Your task to perform on an android device: toggle javascript in the chrome app Image 0: 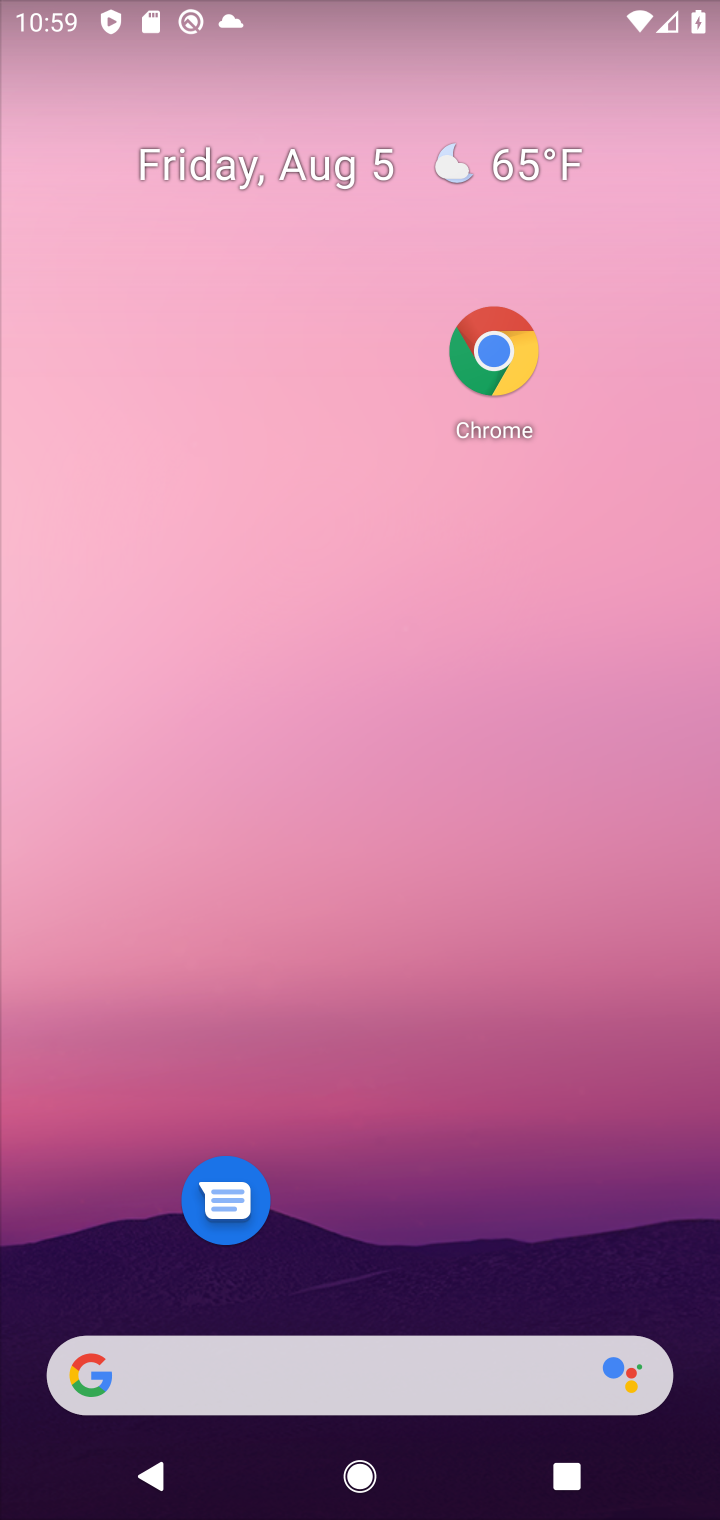
Step 0: drag from (383, 1307) to (628, 128)
Your task to perform on an android device: toggle javascript in the chrome app Image 1: 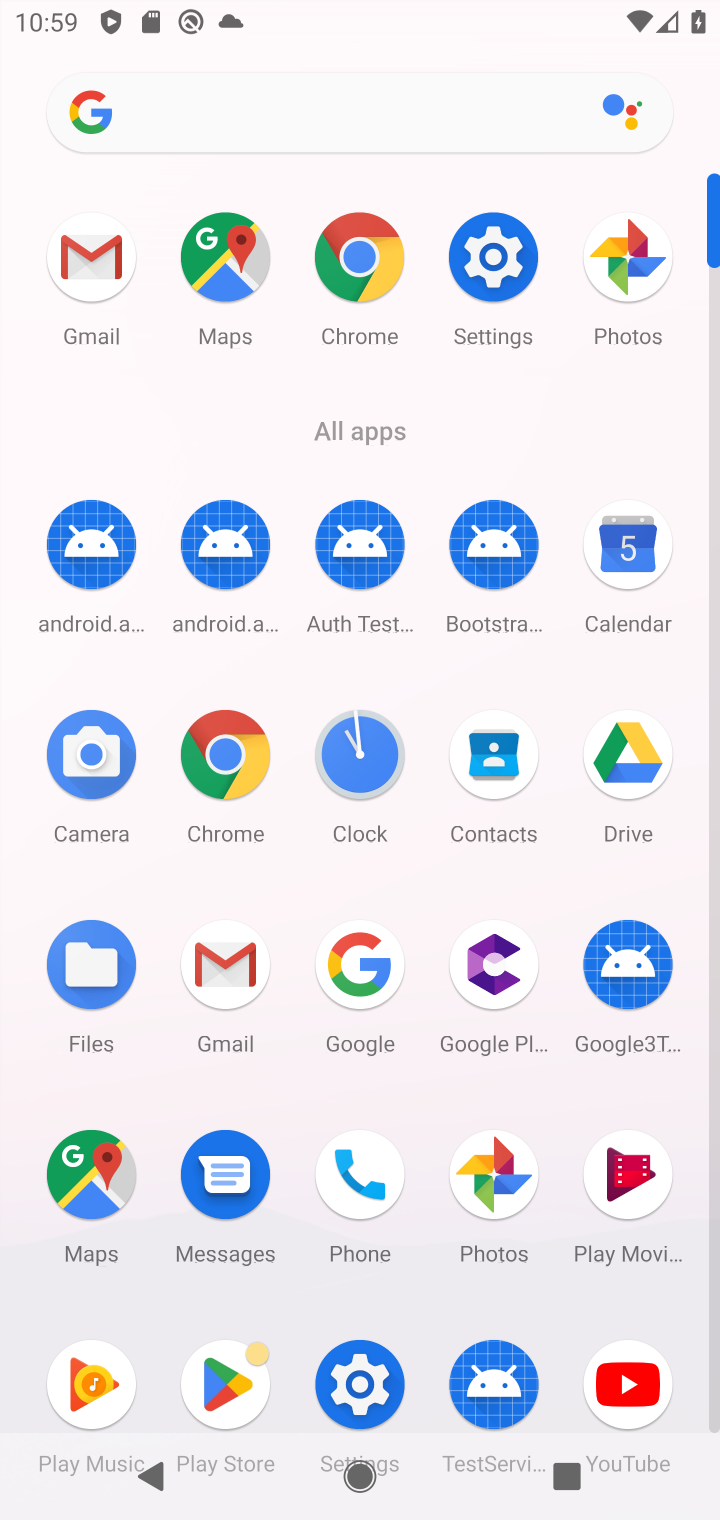
Step 1: click (359, 284)
Your task to perform on an android device: toggle javascript in the chrome app Image 2: 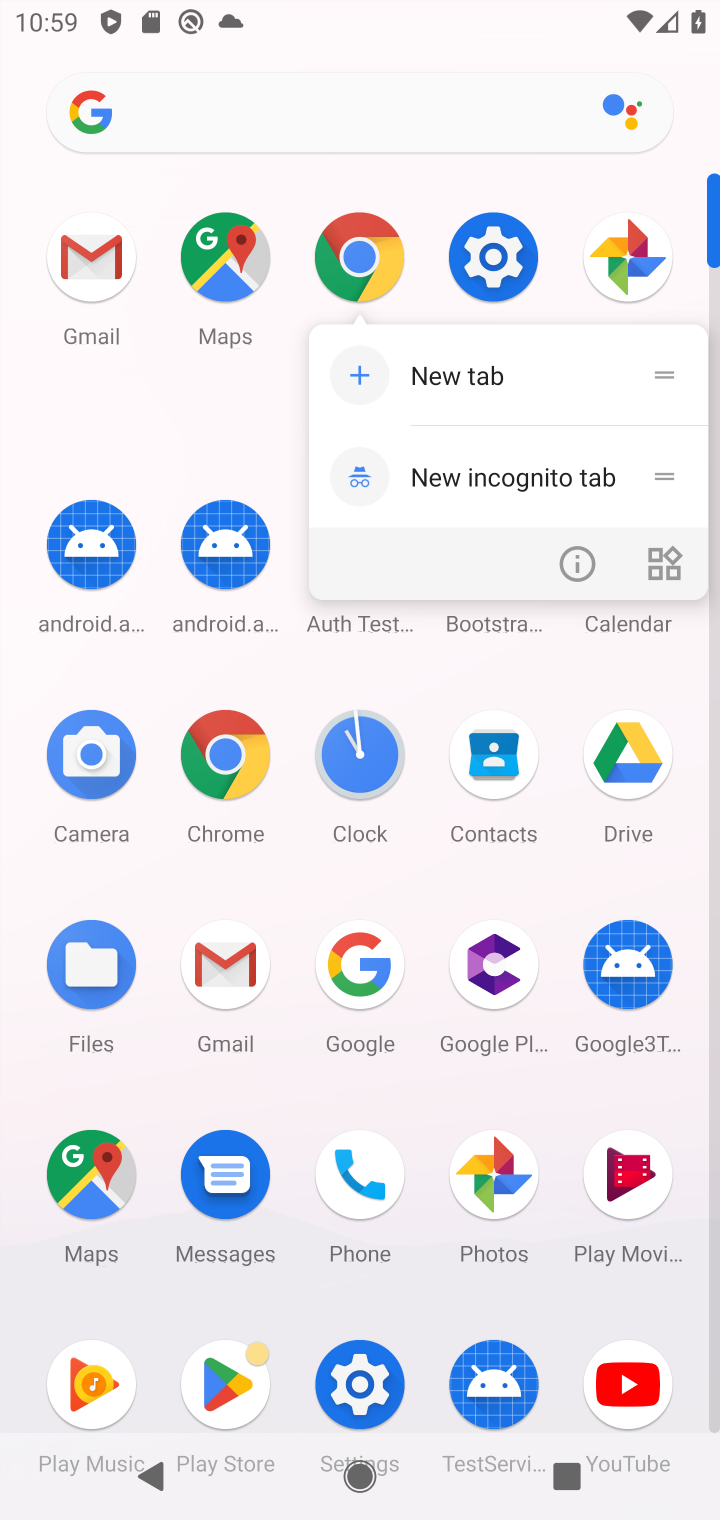
Step 2: click (358, 266)
Your task to perform on an android device: toggle javascript in the chrome app Image 3: 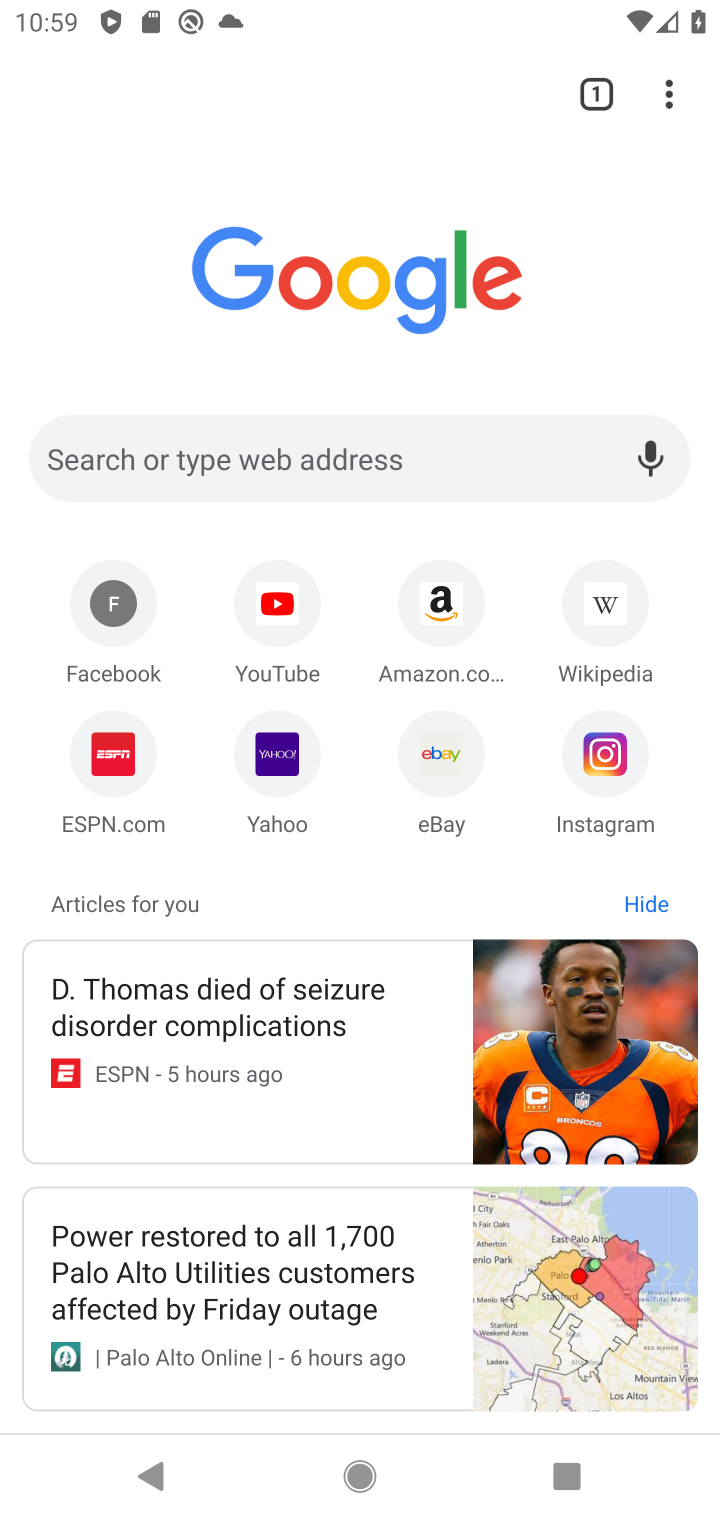
Step 3: click (678, 91)
Your task to perform on an android device: toggle javascript in the chrome app Image 4: 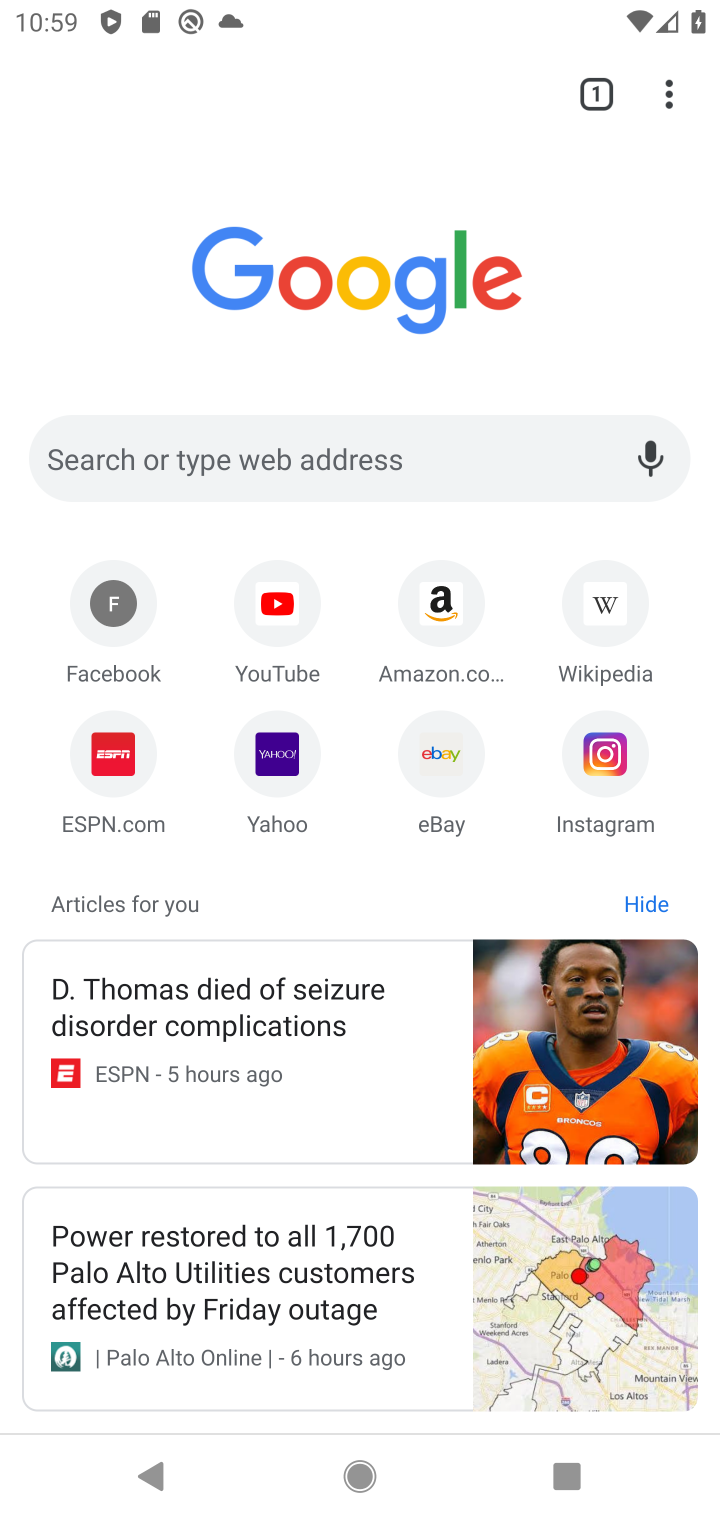
Step 4: click (662, 98)
Your task to perform on an android device: toggle javascript in the chrome app Image 5: 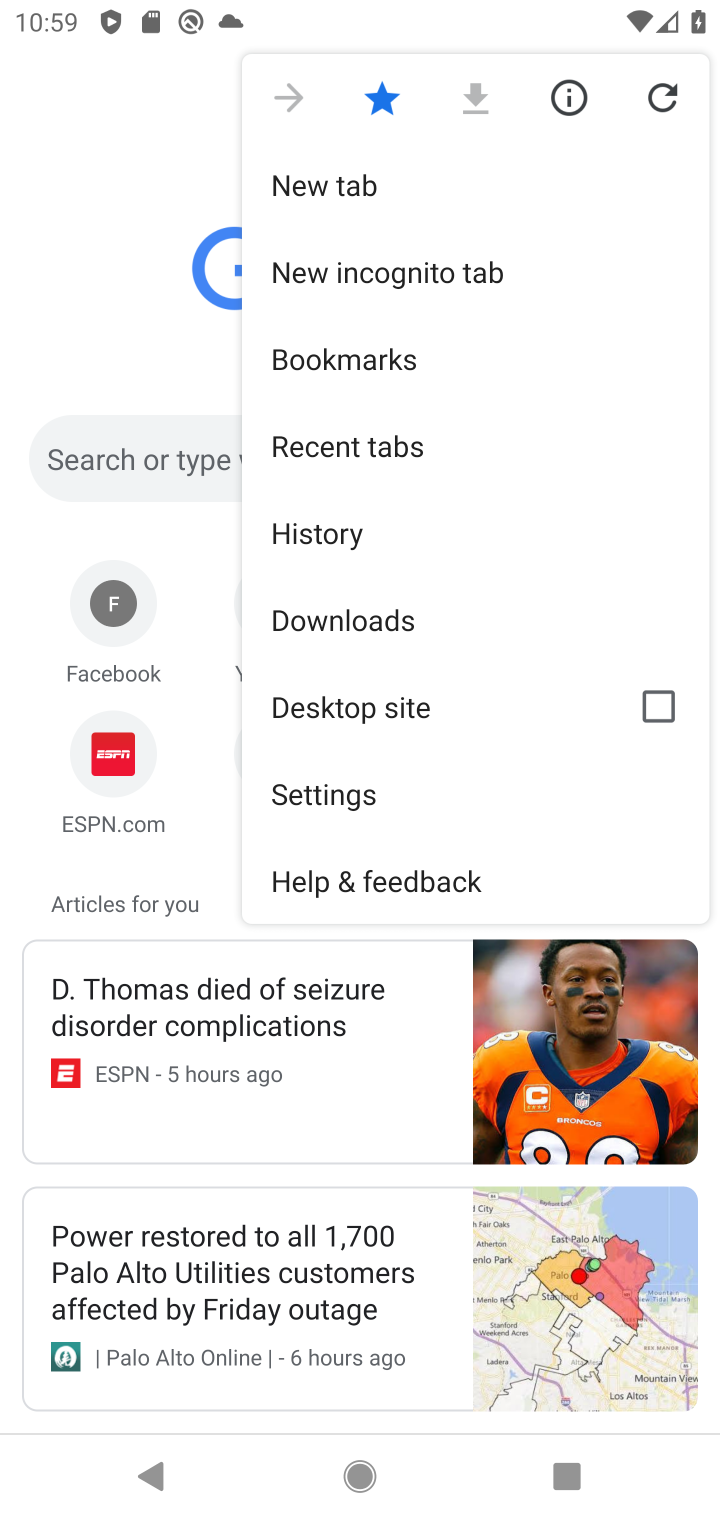
Step 5: click (342, 799)
Your task to perform on an android device: toggle javascript in the chrome app Image 6: 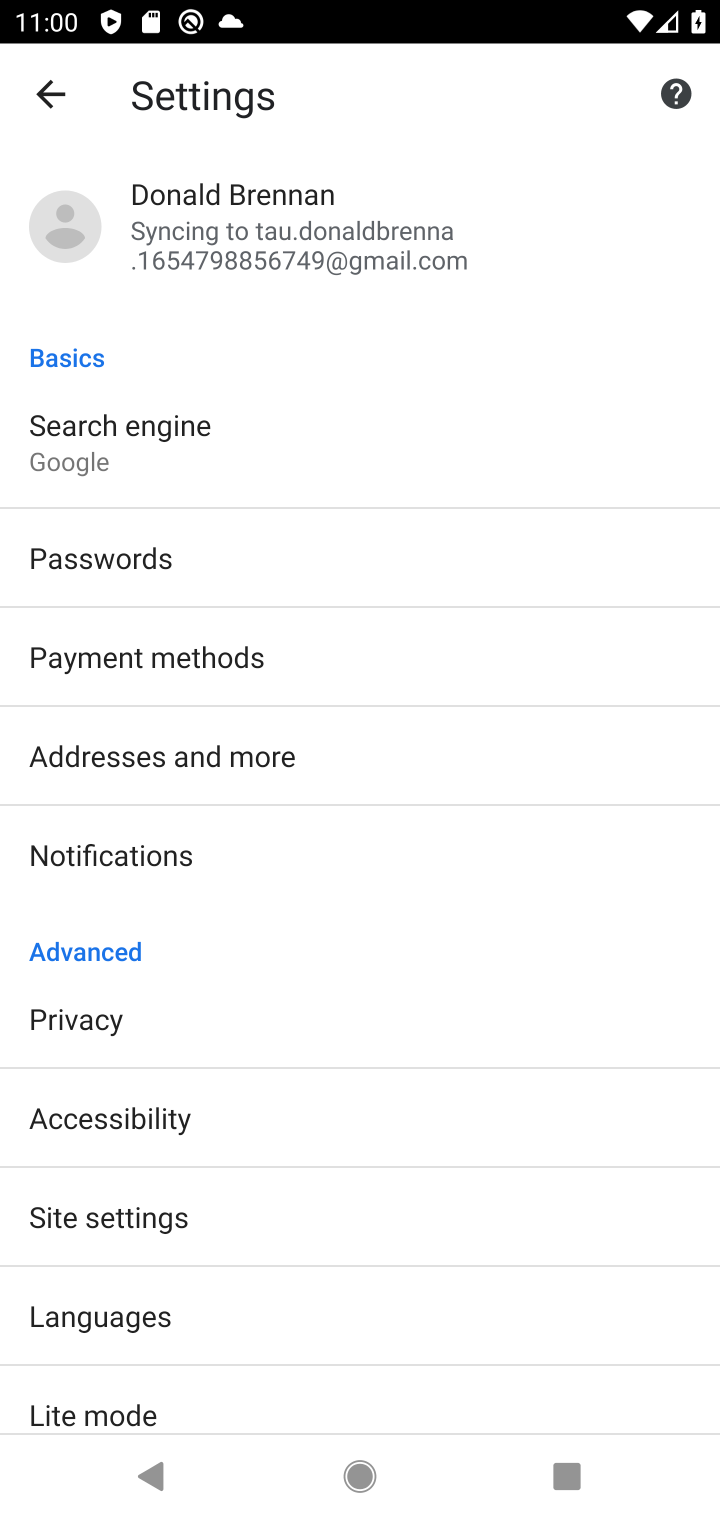
Step 6: click (665, 101)
Your task to perform on an android device: toggle javascript in the chrome app Image 7: 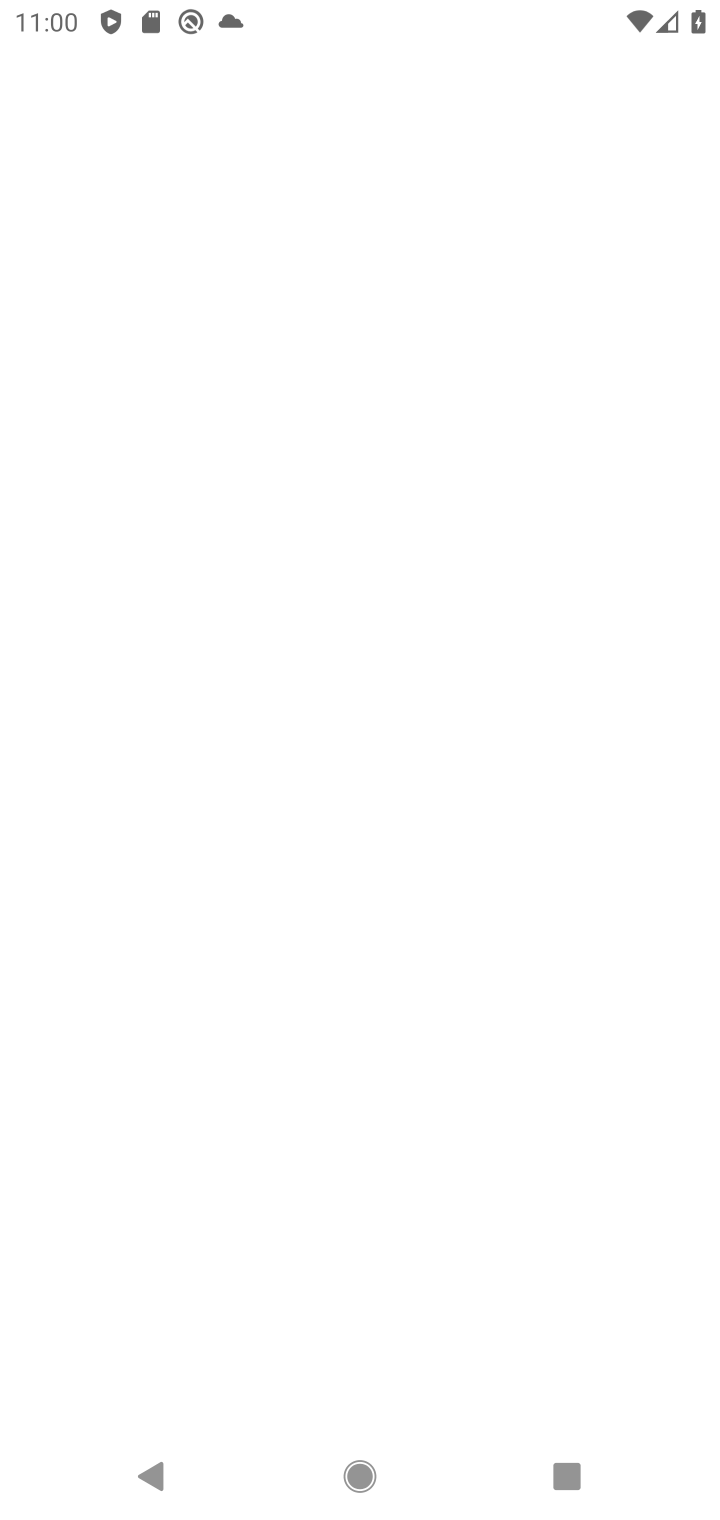
Step 7: drag from (378, 1298) to (281, 689)
Your task to perform on an android device: toggle javascript in the chrome app Image 8: 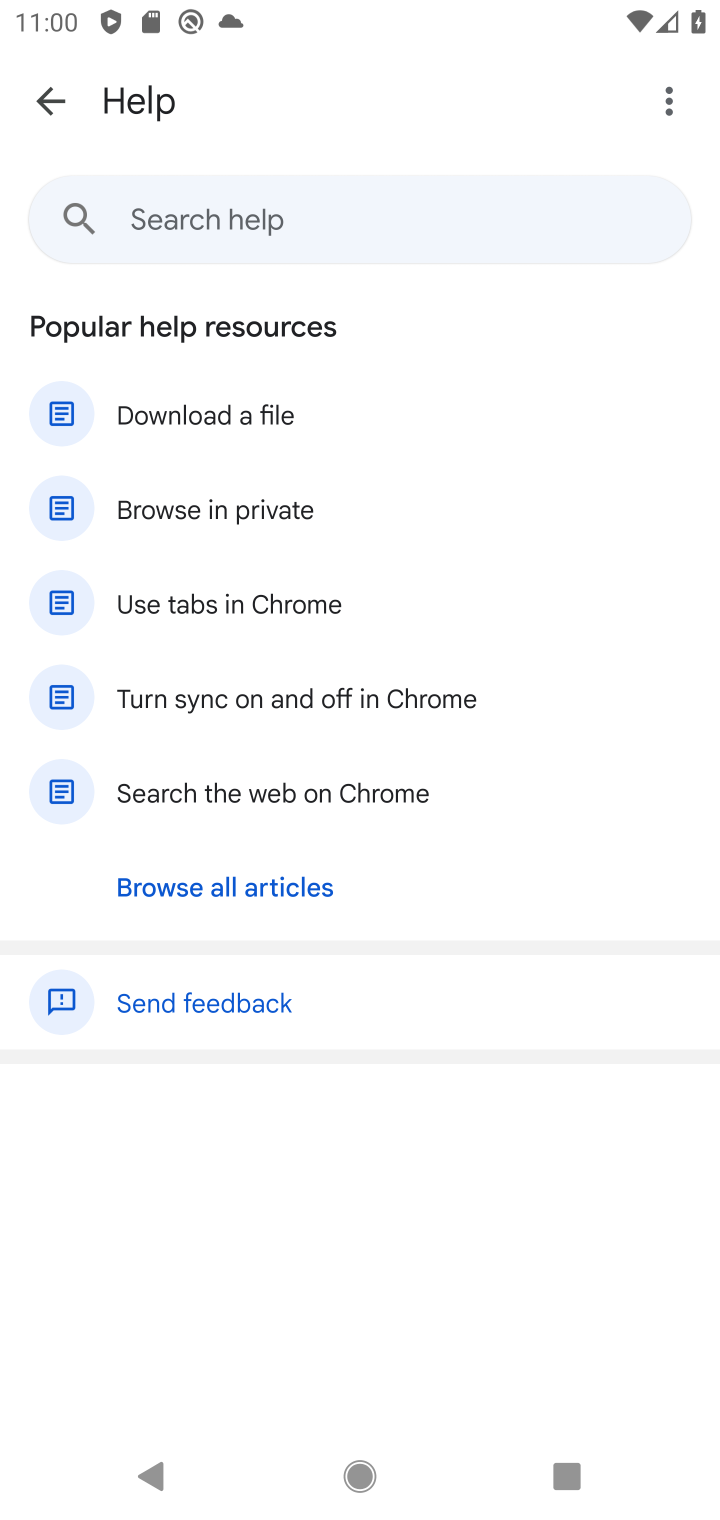
Step 8: click (50, 105)
Your task to perform on an android device: toggle javascript in the chrome app Image 9: 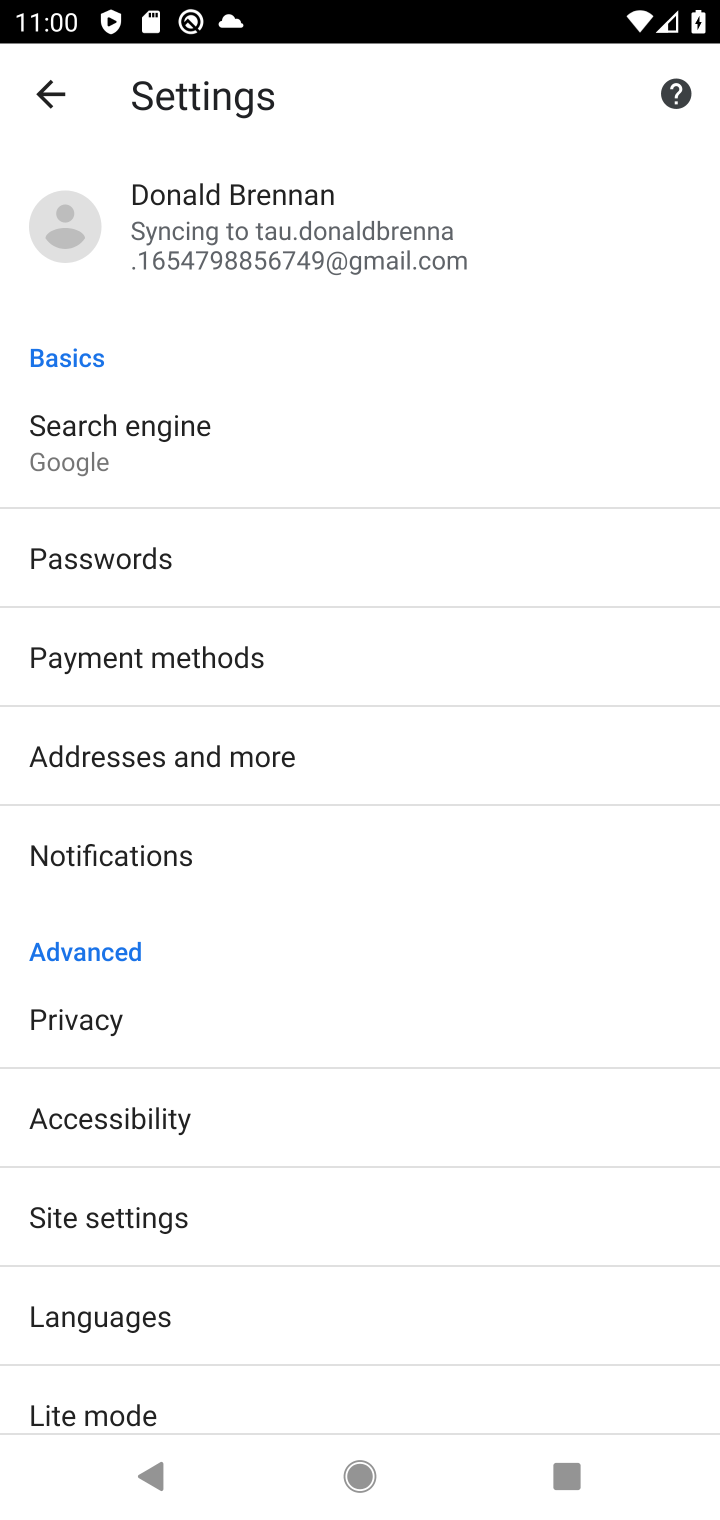
Step 9: click (138, 1227)
Your task to perform on an android device: toggle javascript in the chrome app Image 10: 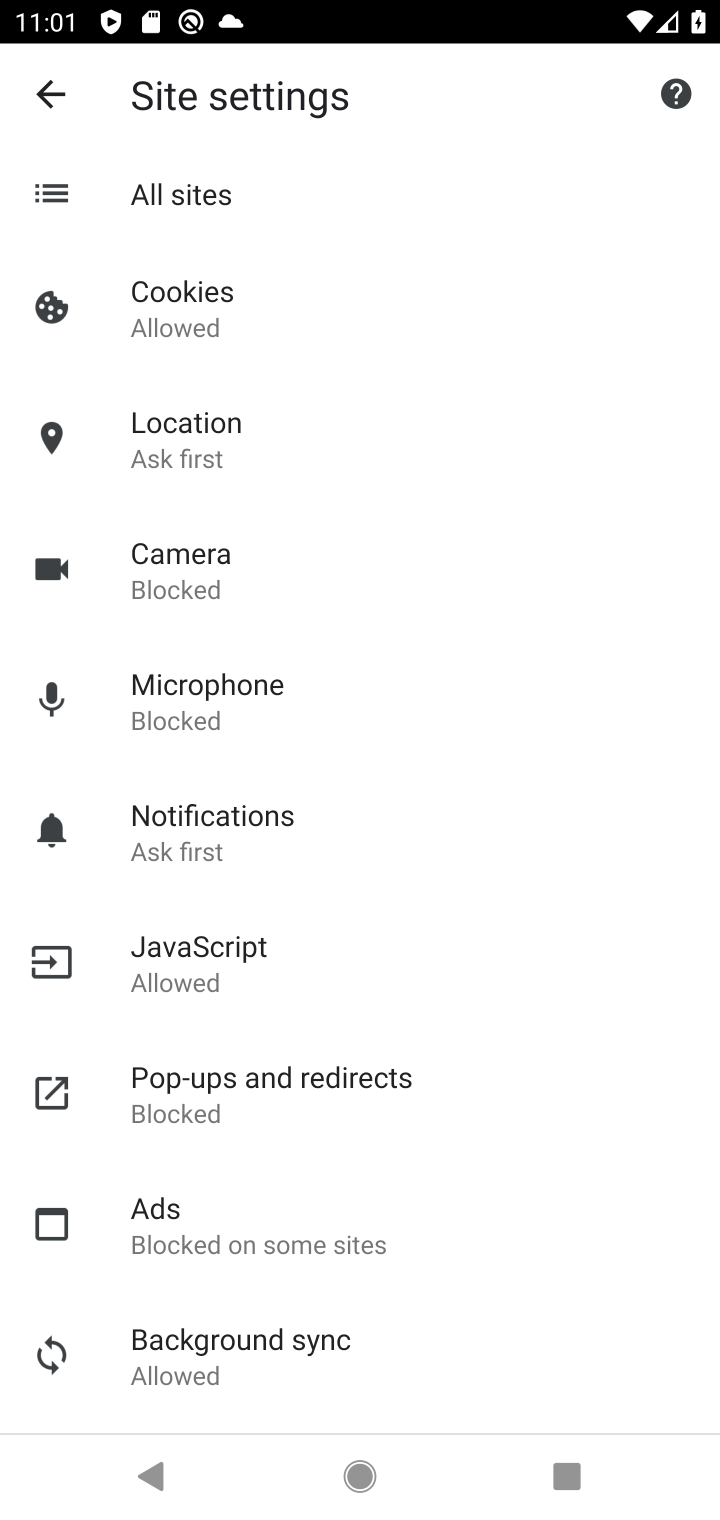
Step 10: click (189, 959)
Your task to perform on an android device: toggle javascript in the chrome app Image 11: 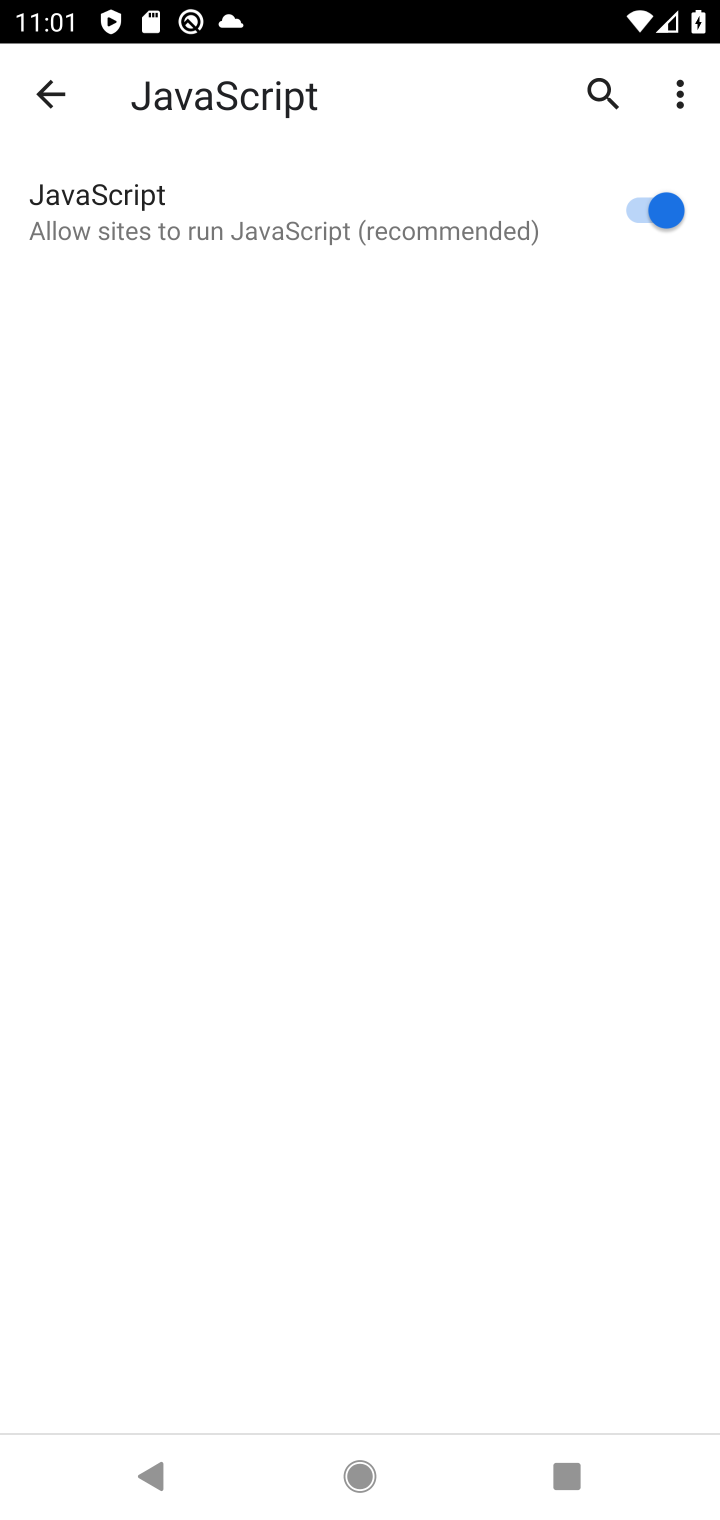
Step 11: click (646, 207)
Your task to perform on an android device: toggle javascript in the chrome app Image 12: 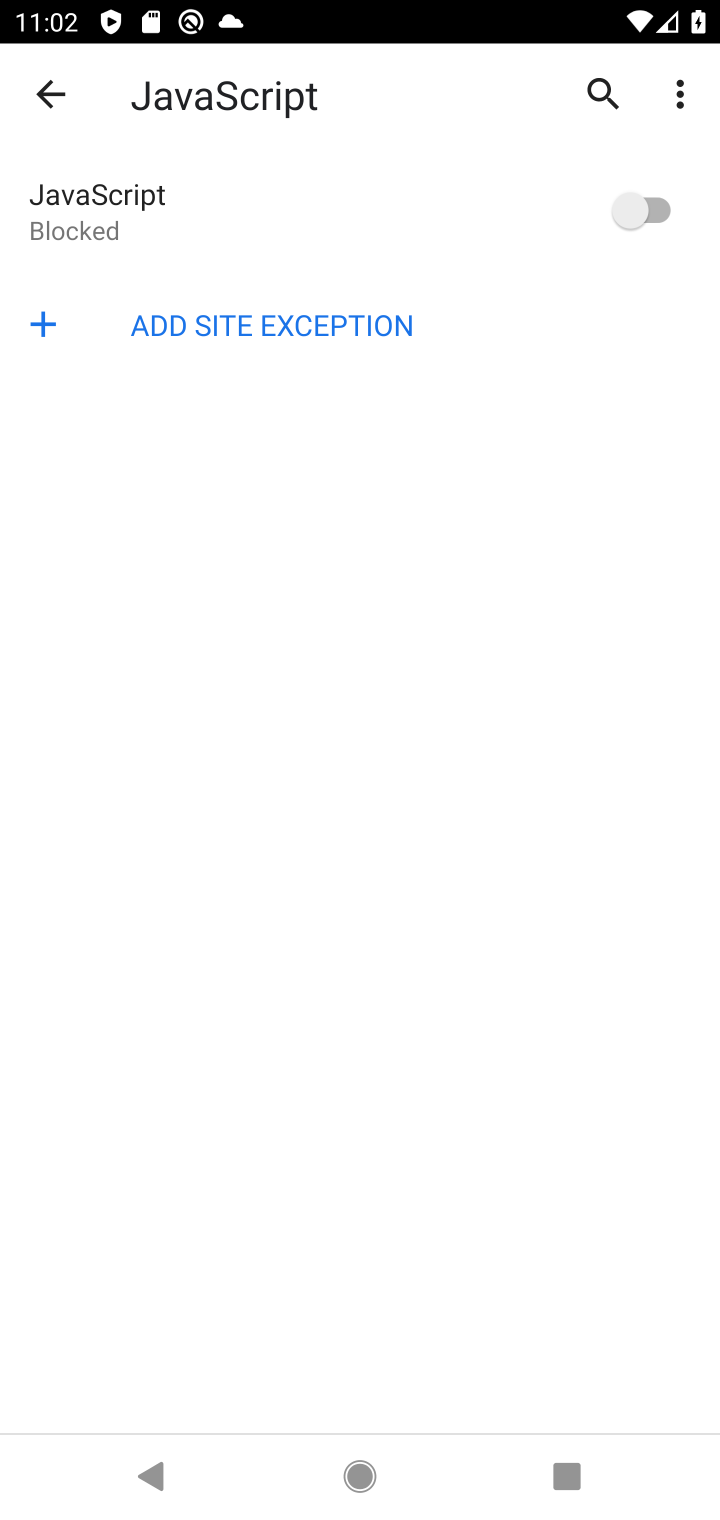
Step 12: task complete